Your task to perform on an android device: turn off wifi Image 0: 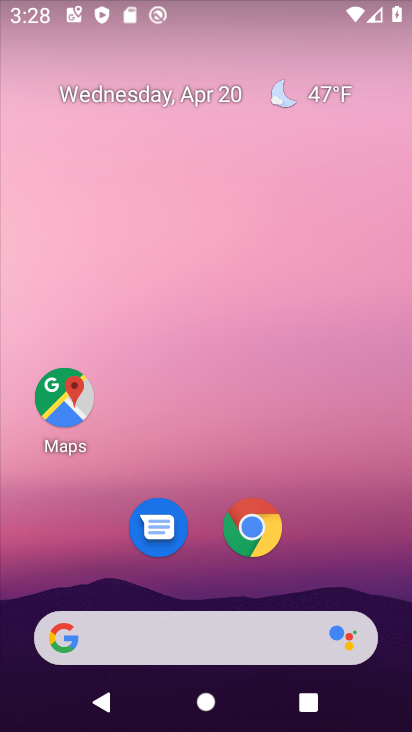
Step 0: drag from (311, 553) to (319, 52)
Your task to perform on an android device: turn off wifi Image 1: 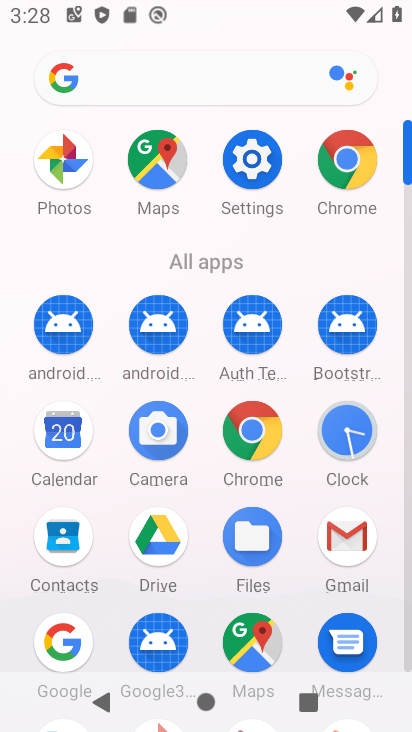
Step 1: click (269, 171)
Your task to perform on an android device: turn off wifi Image 2: 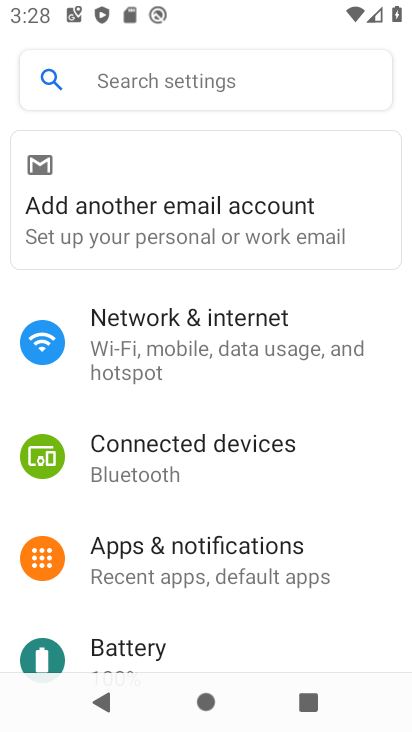
Step 2: click (246, 344)
Your task to perform on an android device: turn off wifi Image 3: 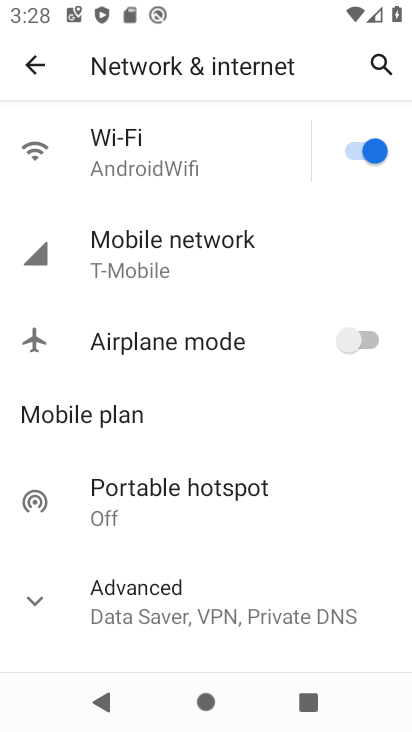
Step 3: click (376, 153)
Your task to perform on an android device: turn off wifi Image 4: 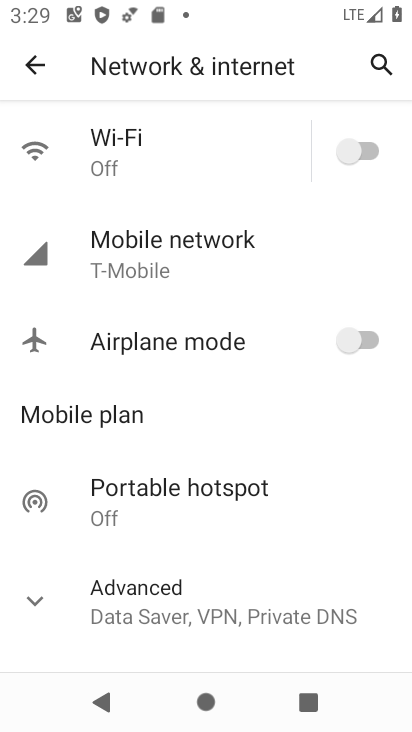
Step 4: task complete